Your task to perform on an android device: turn off priority inbox in the gmail app Image 0: 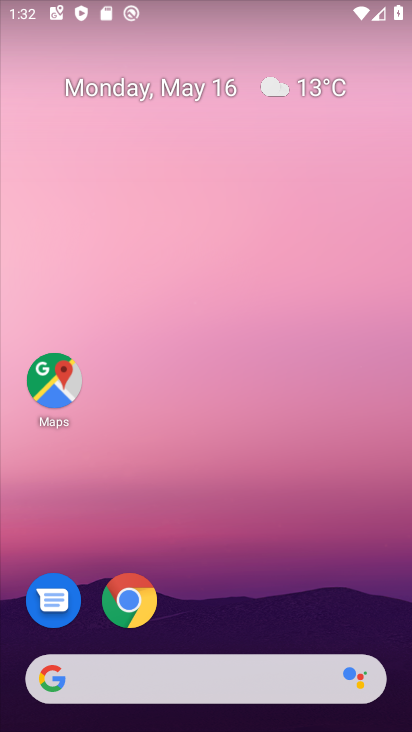
Step 0: drag from (261, 610) to (248, 114)
Your task to perform on an android device: turn off priority inbox in the gmail app Image 1: 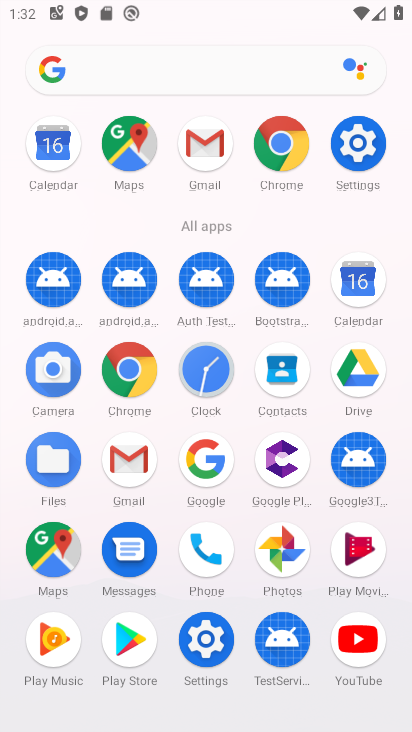
Step 1: click (124, 447)
Your task to perform on an android device: turn off priority inbox in the gmail app Image 2: 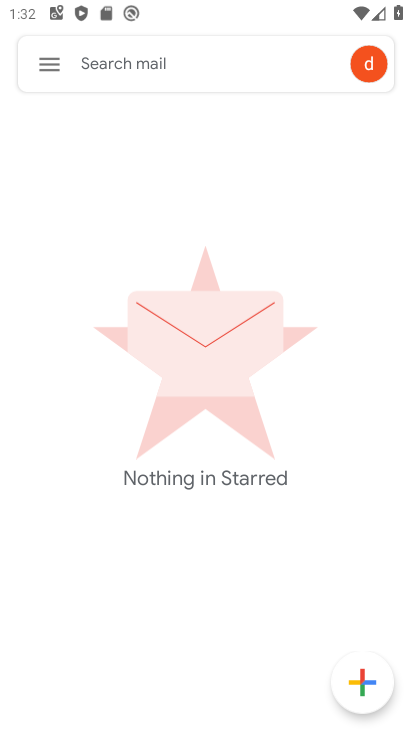
Step 2: click (58, 67)
Your task to perform on an android device: turn off priority inbox in the gmail app Image 3: 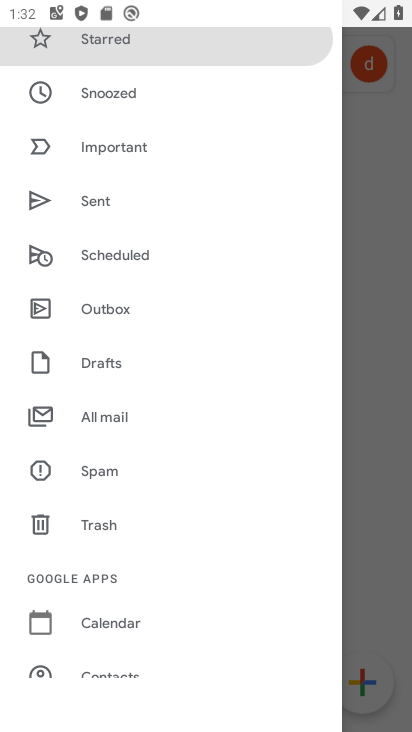
Step 3: drag from (162, 597) to (177, 225)
Your task to perform on an android device: turn off priority inbox in the gmail app Image 4: 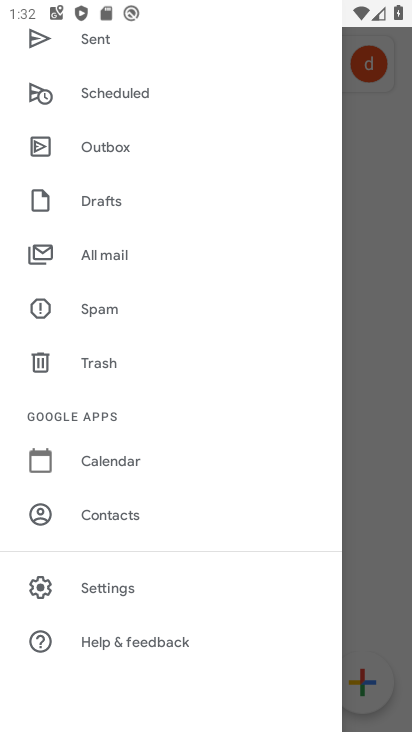
Step 4: click (149, 584)
Your task to perform on an android device: turn off priority inbox in the gmail app Image 5: 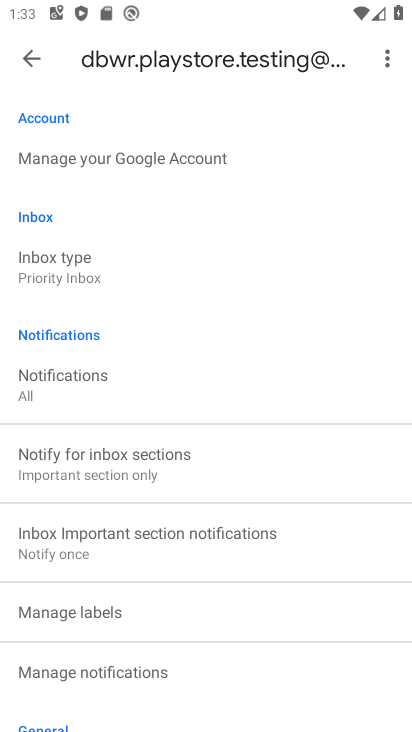
Step 5: click (83, 260)
Your task to perform on an android device: turn off priority inbox in the gmail app Image 6: 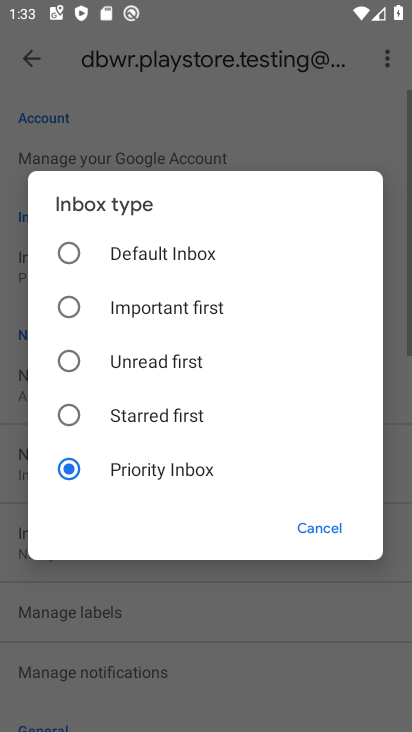
Step 6: click (92, 267)
Your task to perform on an android device: turn off priority inbox in the gmail app Image 7: 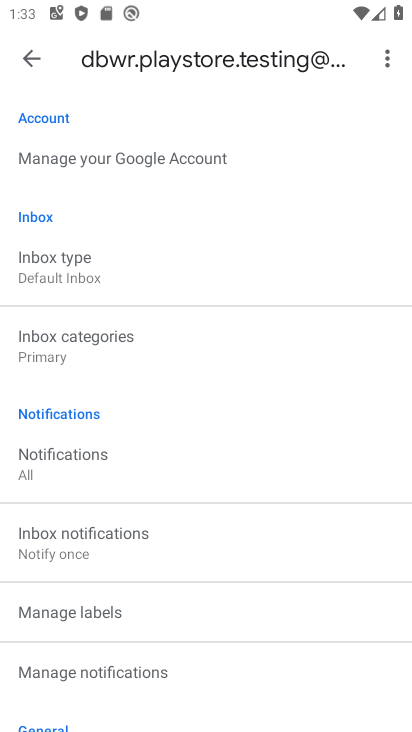
Step 7: task complete